Your task to perform on an android device: check out phone information Image 0: 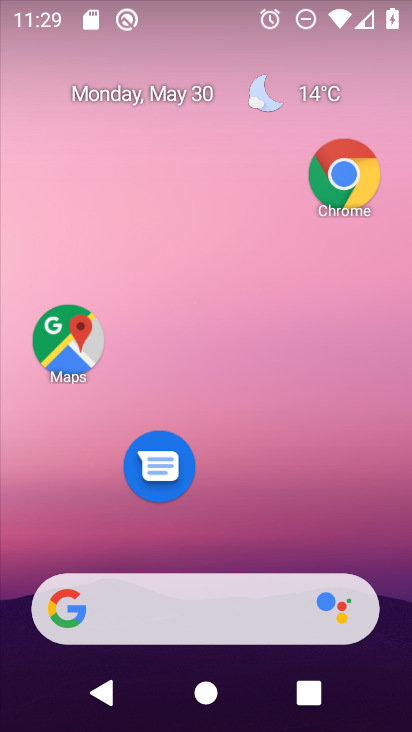
Step 0: drag from (266, 532) to (247, 132)
Your task to perform on an android device: check out phone information Image 1: 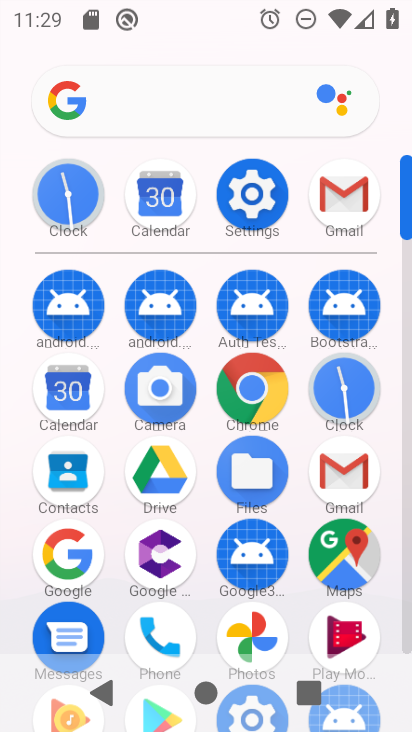
Step 1: click (239, 200)
Your task to perform on an android device: check out phone information Image 2: 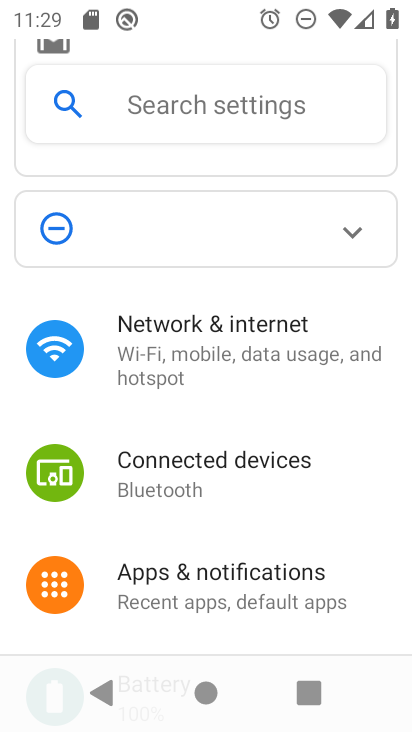
Step 2: drag from (244, 541) to (216, 169)
Your task to perform on an android device: check out phone information Image 3: 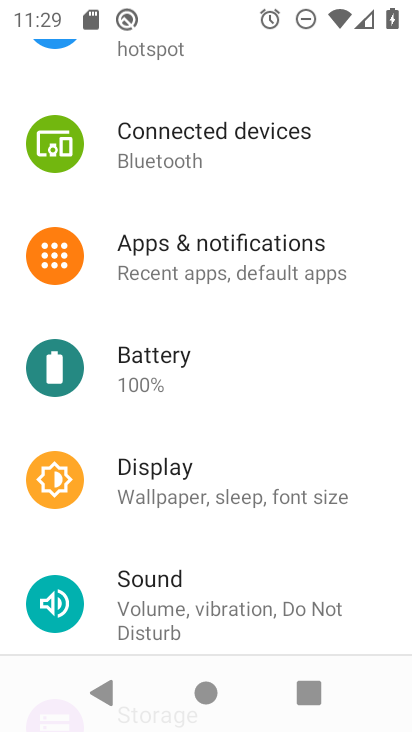
Step 3: drag from (238, 549) to (233, 201)
Your task to perform on an android device: check out phone information Image 4: 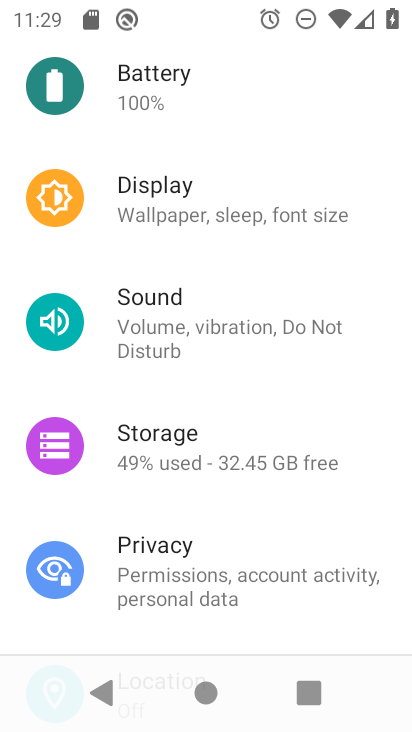
Step 4: drag from (250, 483) to (238, 120)
Your task to perform on an android device: check out phone information Image 5: 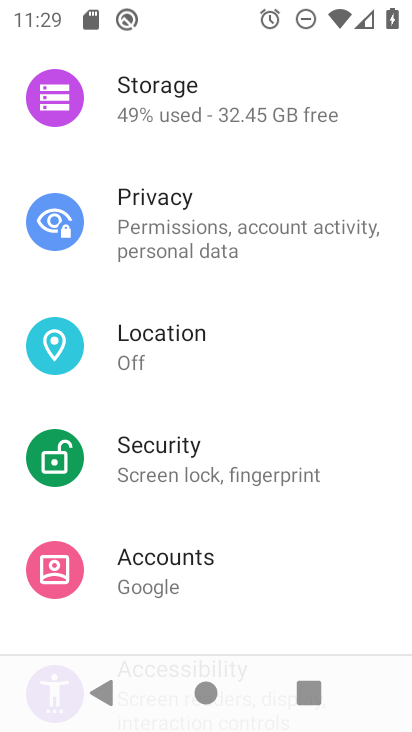
Step 5: drag from (261, 484) to (255, 123)
Your task to perform on an android device: check out phone information Image 6: 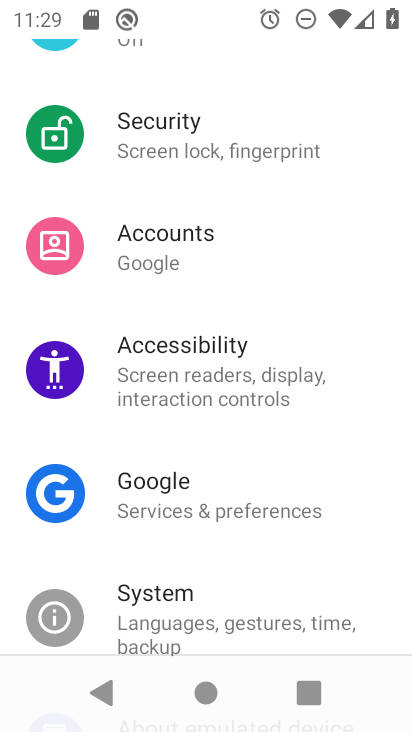
Step 6: drag from (235, 557) to (225, 201)
Your task to perform on an android device: check out phone information Image 7: 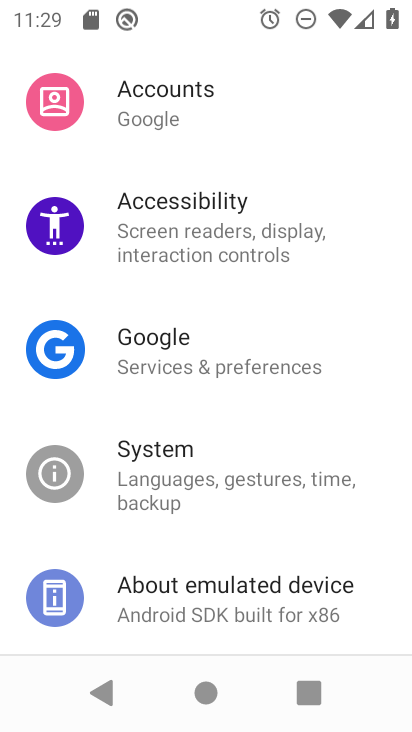
Step 7: click (242, 563)
Your task to perform on an android device: check out phone information Image 8: 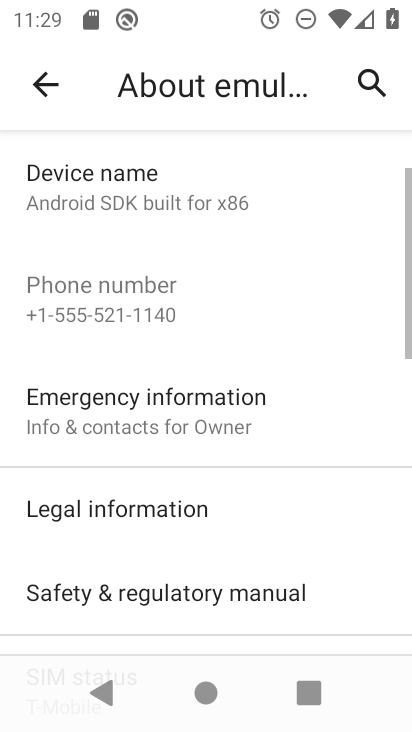
Step 8: drag from (224, 539) to (200, 260)
Your task to perform on an android device: check out phone information Image 9: 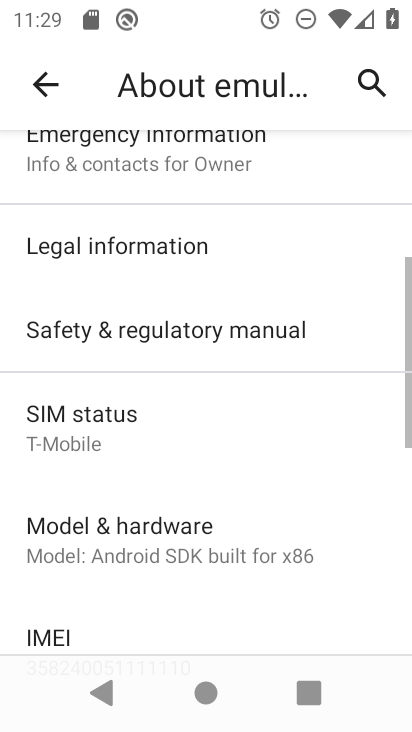
Step 9: drag from (153, 585) to (149, 220)
Your task to perform on an android device: check out phone information Image 10: 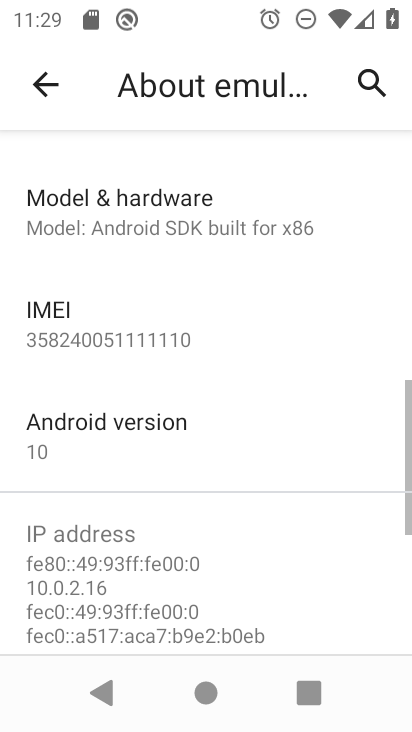
Step 10: drag from (169, 502) to (155, 231)
Your task to perform on an android device: check out phone information Image 11: 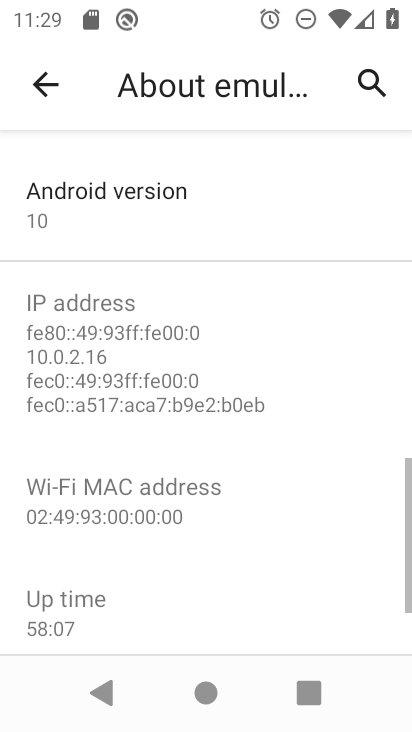
Step 11: drag from (144, 493) to (149, 127)
Your task to perform on an android device: check out phone information Image 12: 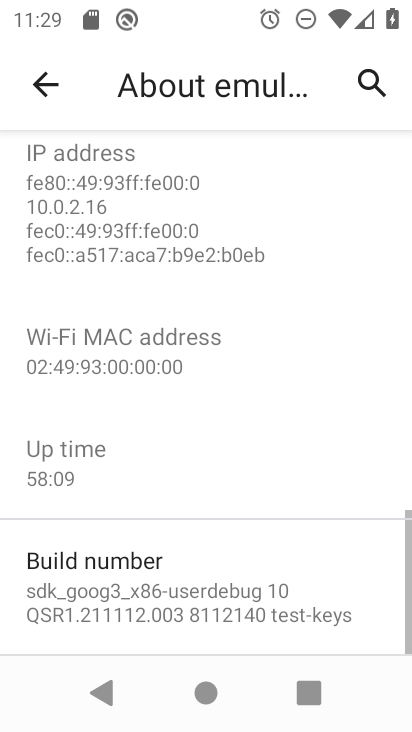
Step 12: drag from (145, 477) to (144, 227)
Your task to perform on an android device: check out phone information Image 13: 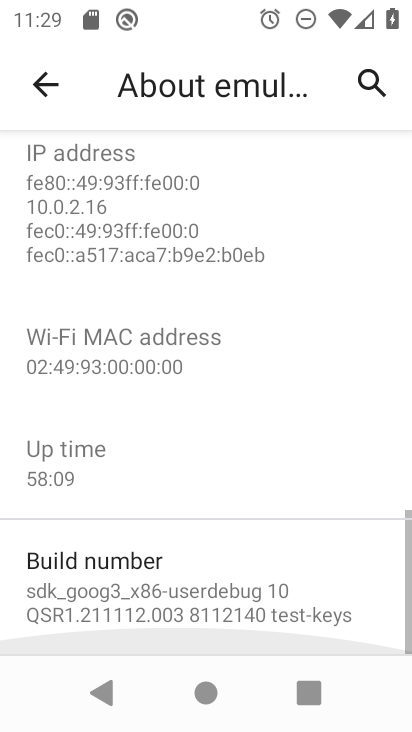
Step 13: drag from (144, 226) to (183, 576)
Your task to perform on an android device: check out phone information Image 14: 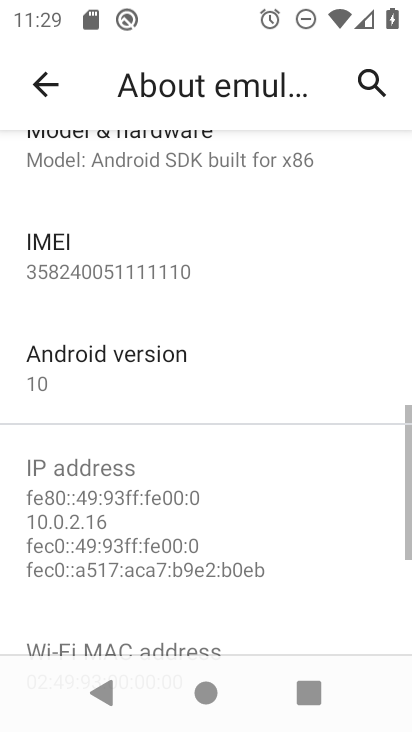
Step 14: drag from (176, 242) to (206, 495)
Your task to perform on an android device: check out phone information Image 15: 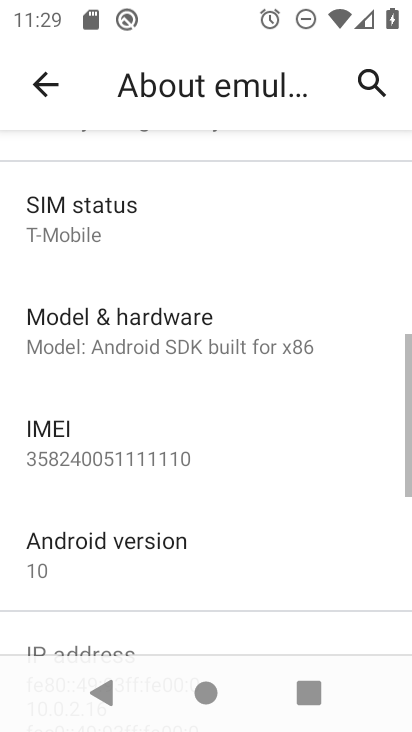
Step 15: drag from (197, 226) to (218, 589)
Your task to perform on an android device: check out phone information Image 16: 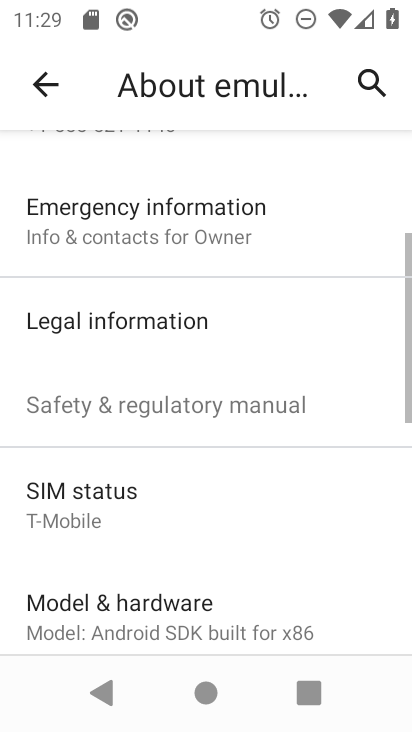
Step 16: drag from (210, 194) to (235, 497)
Your task to perform on an android device: check out phone information Image 17: 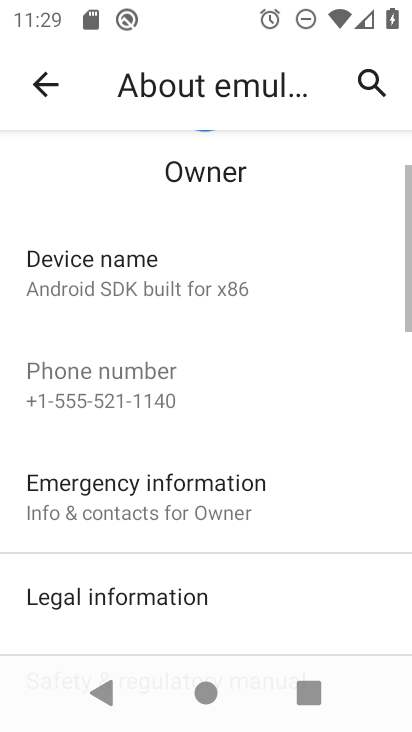
Step 17: click (155, 489)
Your task to perform on an android device: check out phone information Image 18: 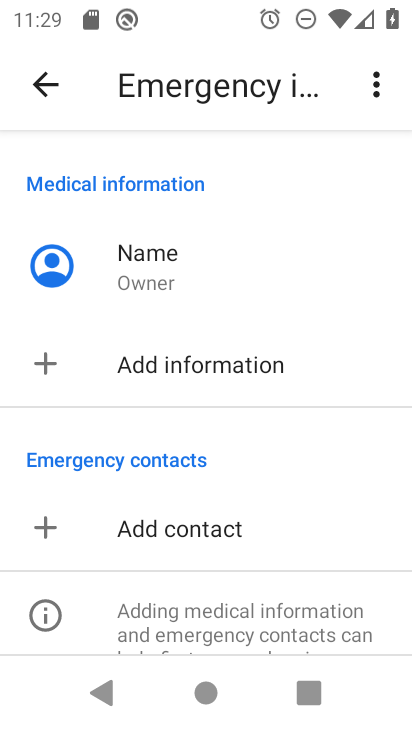
Step 18: drag from (242, 582) to (268, 386)
Your task to perform on an android device: check out phone information Image 19: 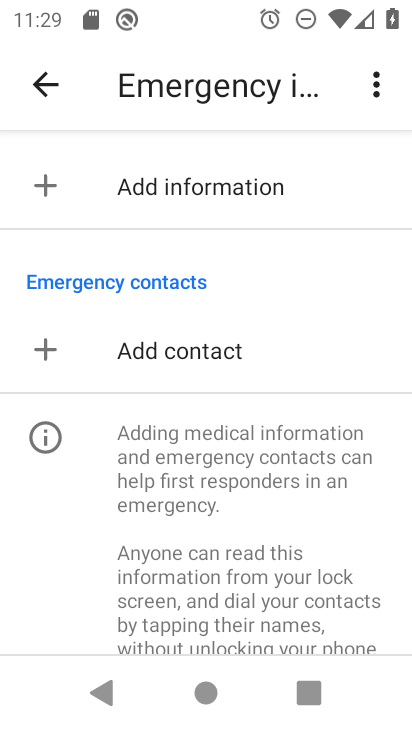
Step 19: click (268, 496)
Your task to perform on an android device: check out phone information Image 20: 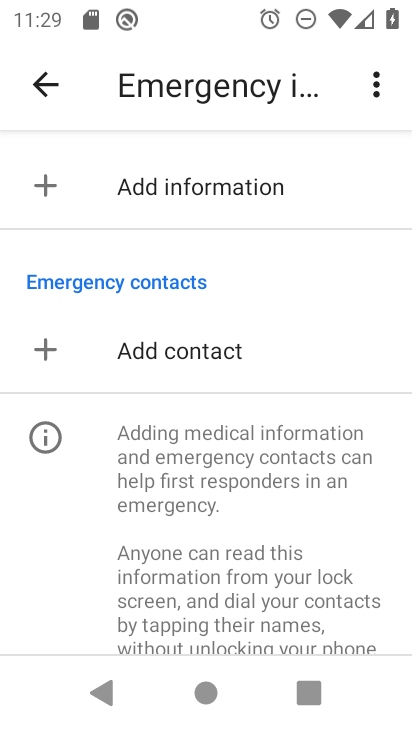
Step 20: drag from (267, 488) to (261, 262)
Your task to perform on an android device: check out phone information Image 21: 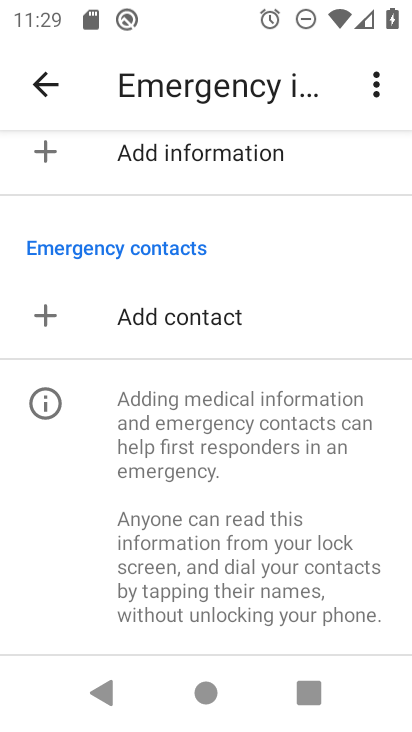
Step 21: press back button
Your task to perform on an android device: check out phone information Image 22: 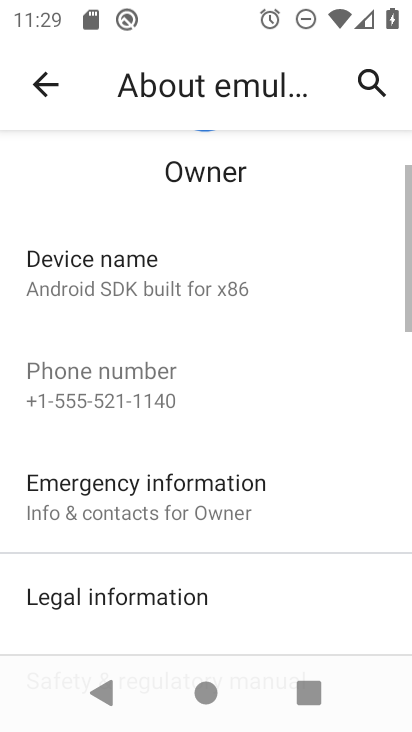
Step 22: click (178, 601)
Your task to perform on an android device: check out phone information Image 23: 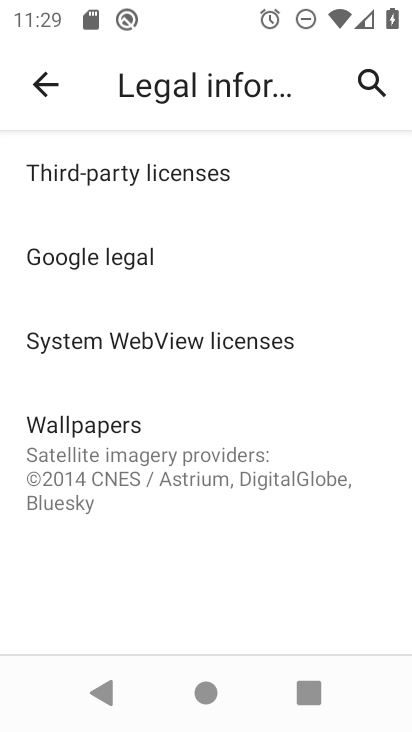
Step 23: task complete